Your task to perform on an android device: Open the Play Movies app and select the watchlist tab. Image 0: 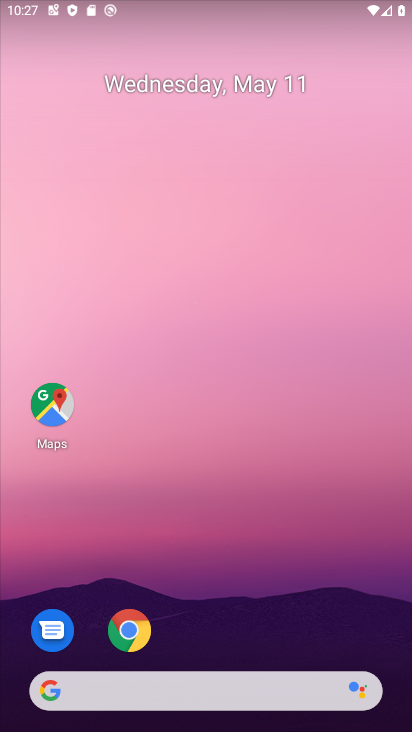
Step 0: drag from (205, 729) to (208, 186)
Your task to perform on an android device: Open the Play Movies app and select the watchlist tab. Image 1: 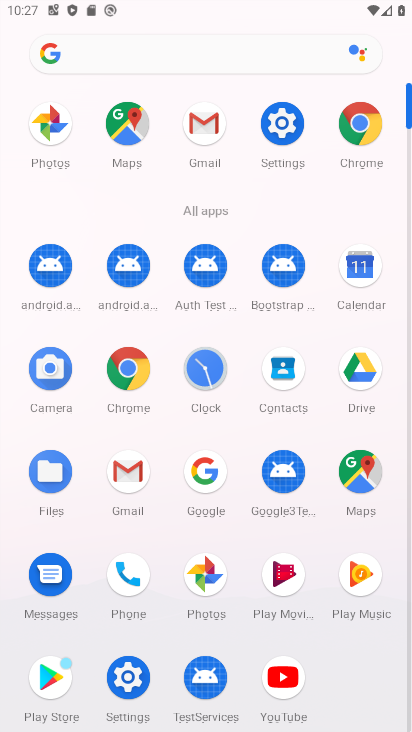
Step 1: click (279, 572)
Your task to perform on an android device: Open the Play Movies app and select the watchlist tab. Image 2: 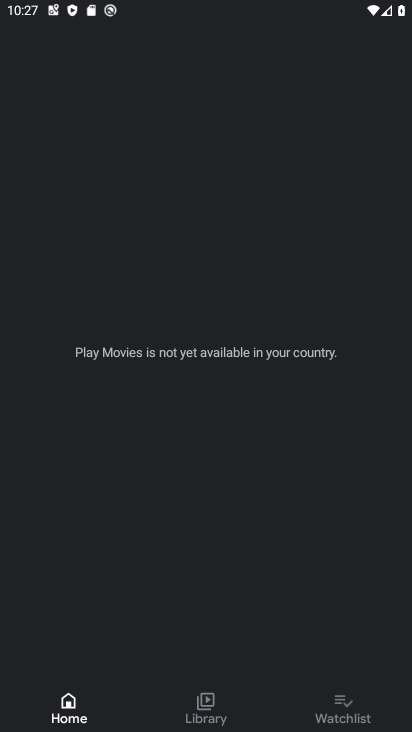
Step 2: click (346, 698)
Your task to perform on an android device: Open the Play Movies app and select the watchlist tab. Image 3: 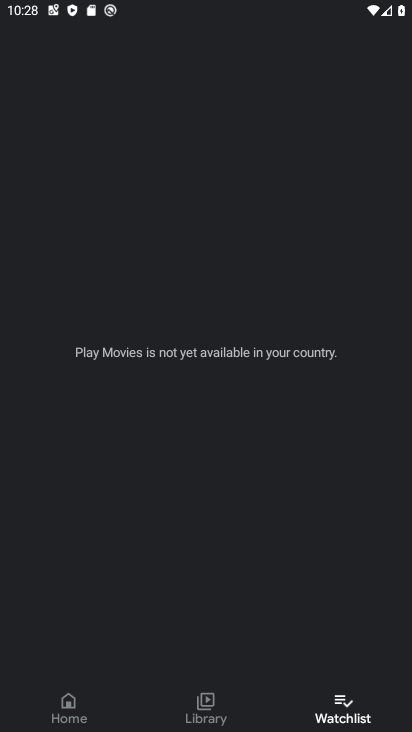
Step 3: task complete